Your task to perform on an android device: Show me the alarms in the clock app Image 0: 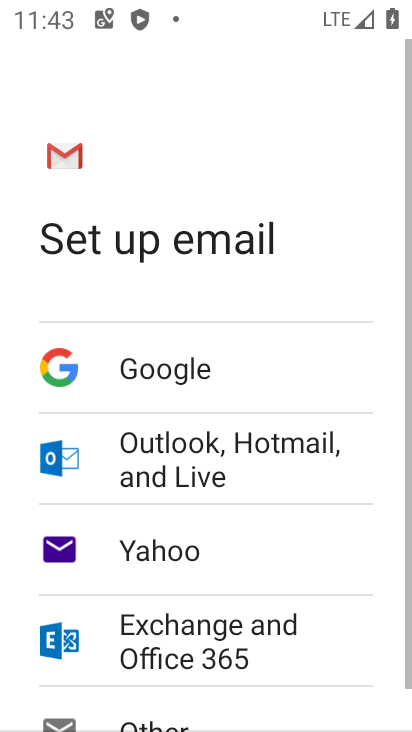
Step 0: press home button
Your task to perform on an android device: Show me the alarms in the clock app Image 1: 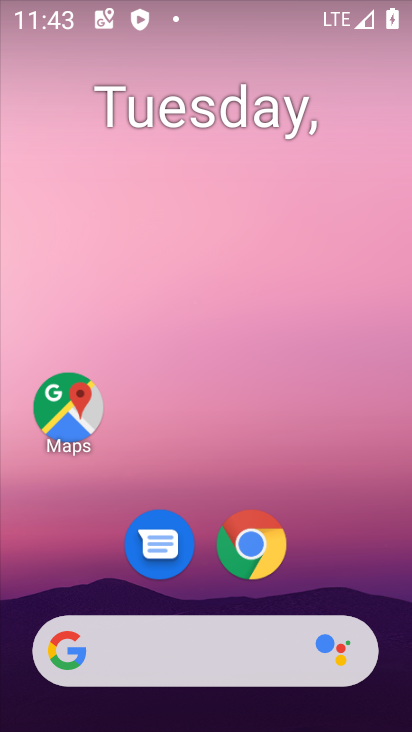
Step 1: drag from (382, 625) to (312, 89)
Your task to perform on an android device: Show me the alarms in the clock app Image 2: 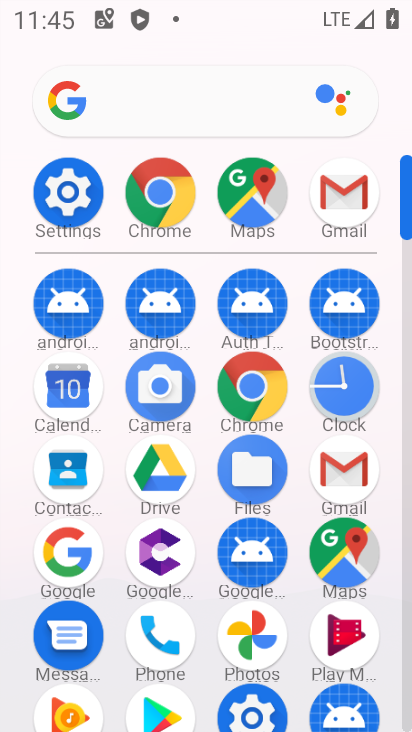
Step 2: click (340, 397)
Your task to perform on an android device: Show me the alarms in the clock app Image 3: 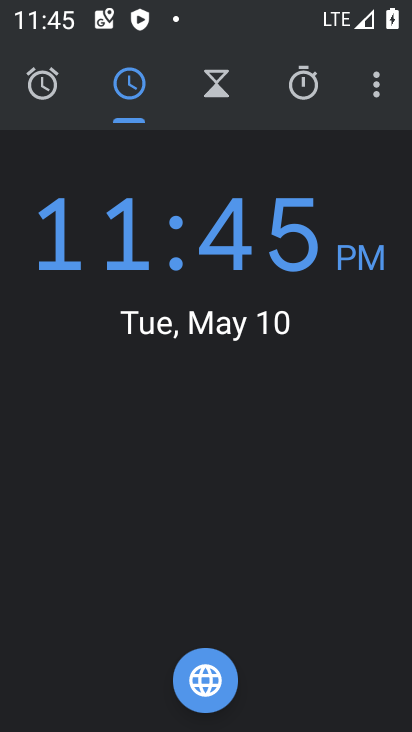
Step 3: click (43, 106)
Your task to perform on an android device: Show me the alarms in the clock app Image 4: 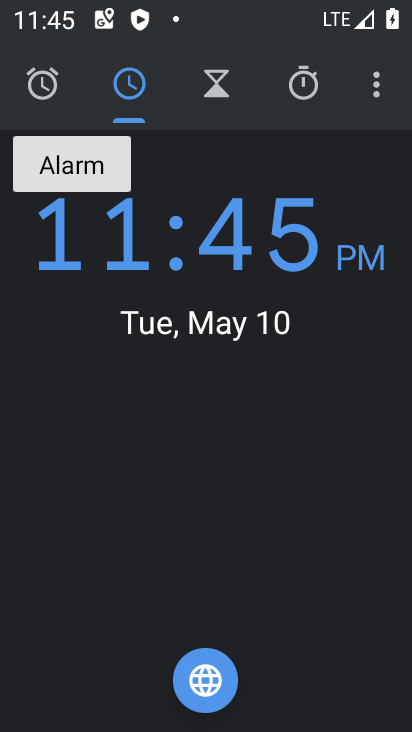
Step 4: click (43, 70)
Your task to perform on an android device: Show me the alarms in the clock app Image 5: 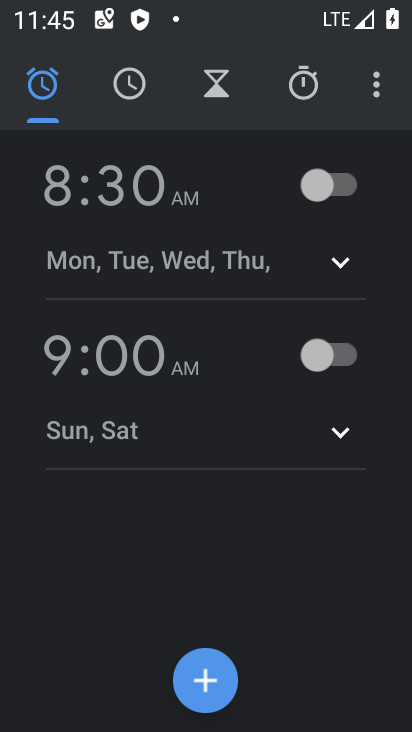
Step 5: task complete